Your task to perform on an android device: open device folders in google photos Image 0: 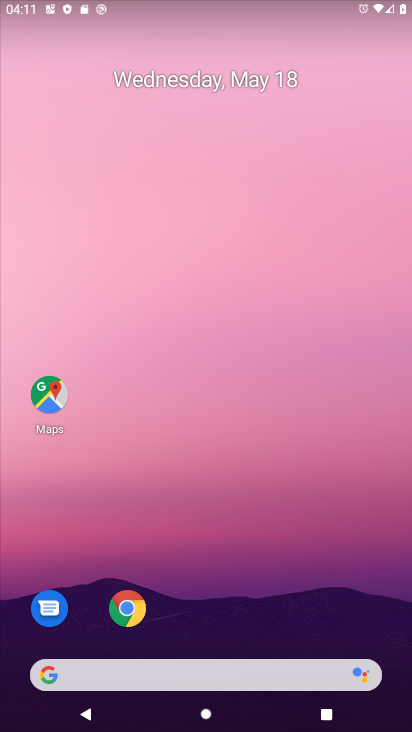
Step 0: drag from (227, 610) to (280, 64)
Your task to perform on an android device: open device folders in google photos Image 1: 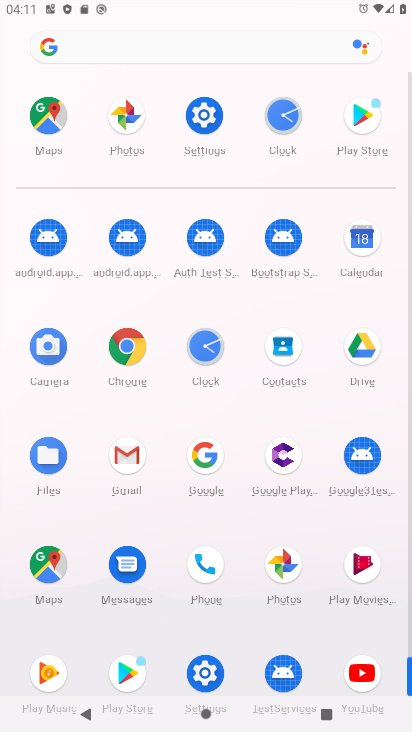
Step 1: click (137, 118)
Your task to perform on an android device: open device folders in google photos Image 2: 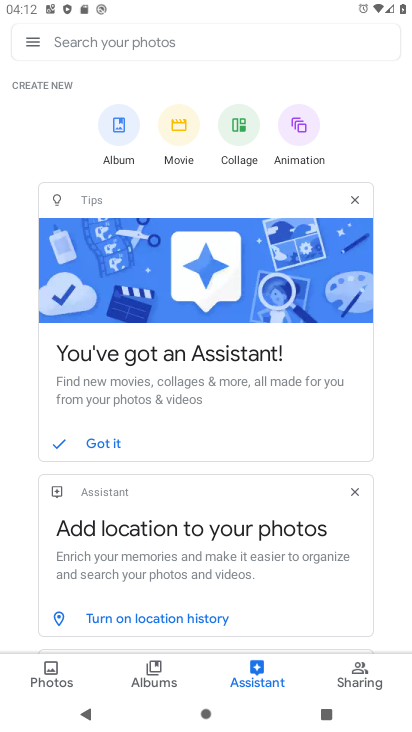
Step 2: click (30, 46)
Your task to perform on an android device: open device folders in google photos Image 3: 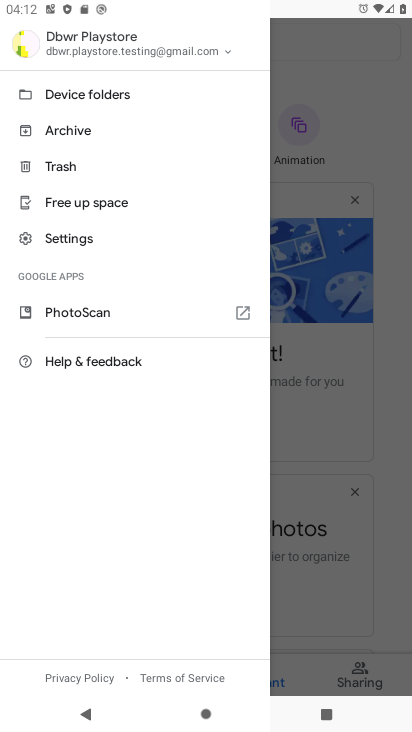
Step 3: click (96, 100)
Your task to perform on an android device: open device folders in google photos Image 4: 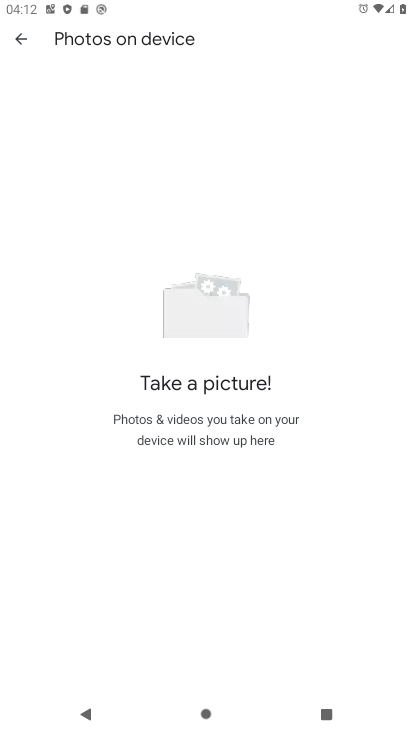
Step 4: task complete